Your task to perform on an android device: Open network settings Image 0: 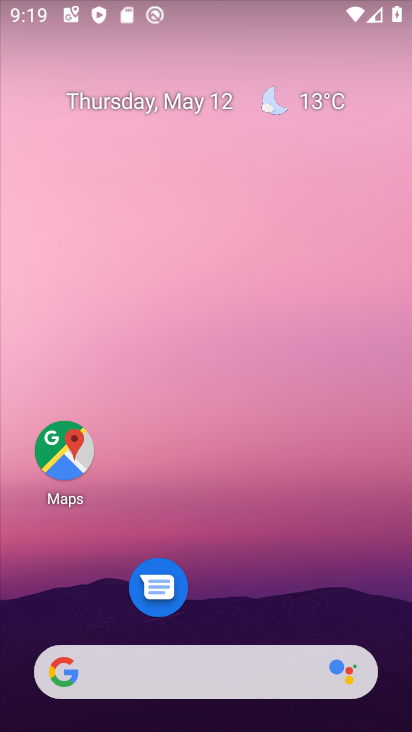
Step 0: press home button
Your task to perform on an android device: Open network settings Image 1: 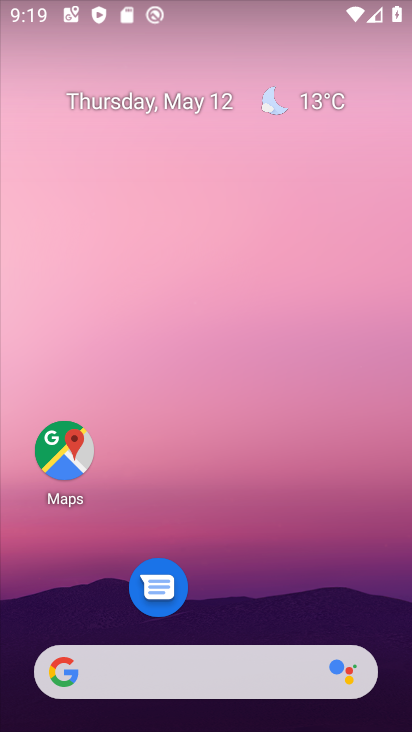
Step 1: drag from (204, 642) to (265, 322)
Your task to perform on an android device: Open network settings Image 2: 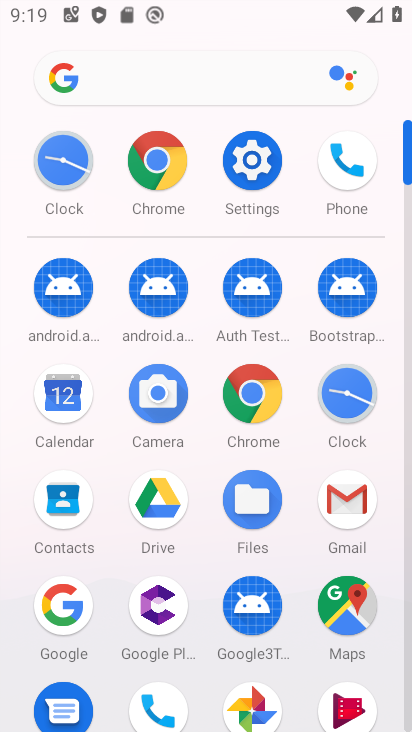
Step 2: click (248, 167)
Your task to perform on an android device: Open network settings Image 3: 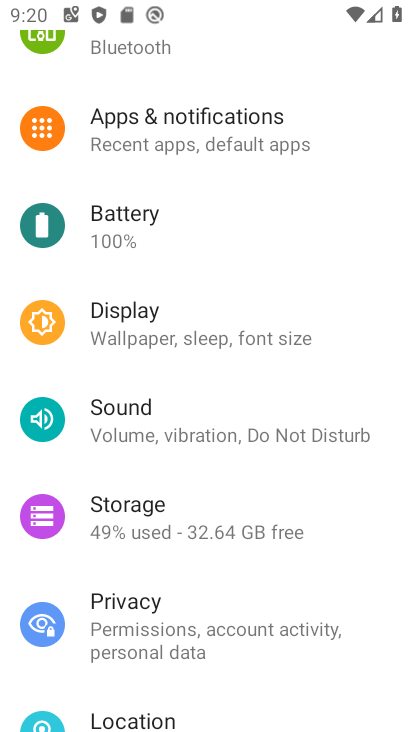
Step 3: drag from (201, 148) to (176, 664)
Your task to perform on an android device: Open network settings Image 4: 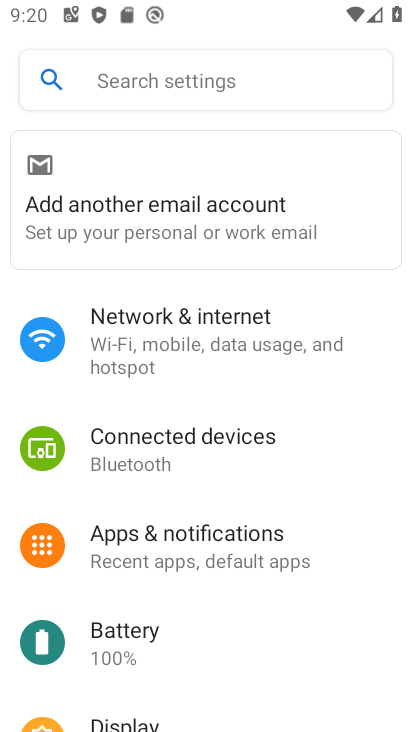
Step 4: click (173, 331)
Your task to perform on an android device: Open network settings Image 5: 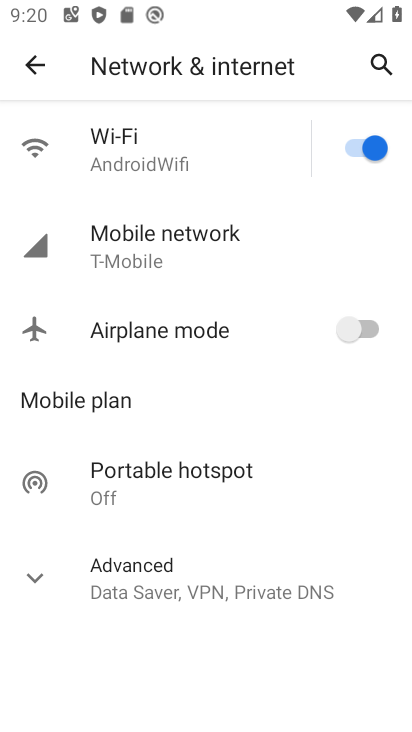
Step 5: click (179, 244)
Your task to perform on an android device: Open network settings Image 6: 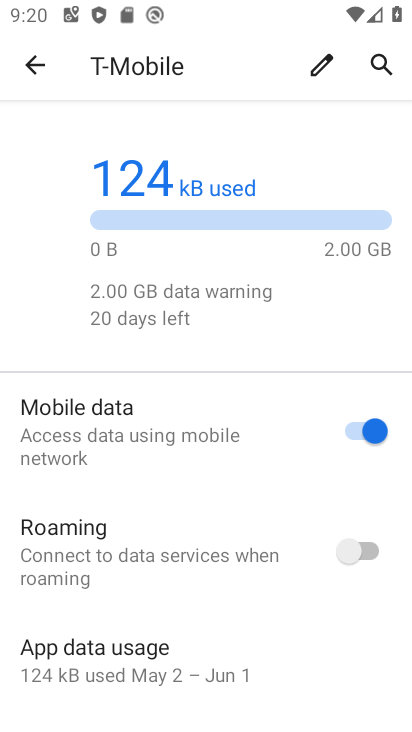
Step 6: task complete